Your task to perform on an android device: Go to Wikipedia Image 0: 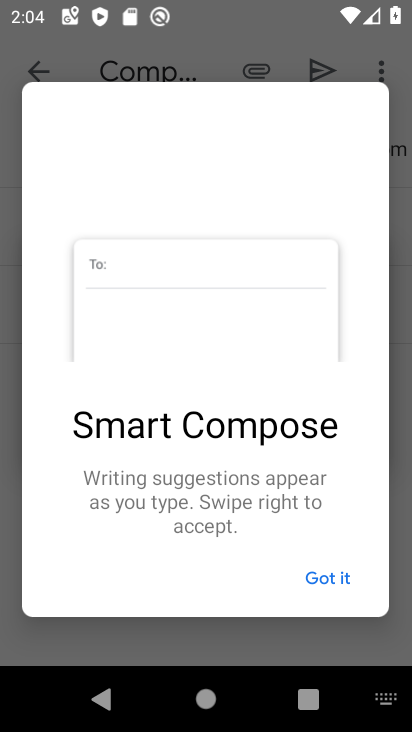
Step 0: press home button
Your task to perform on an android device: Go to Wikipedia Image 1: 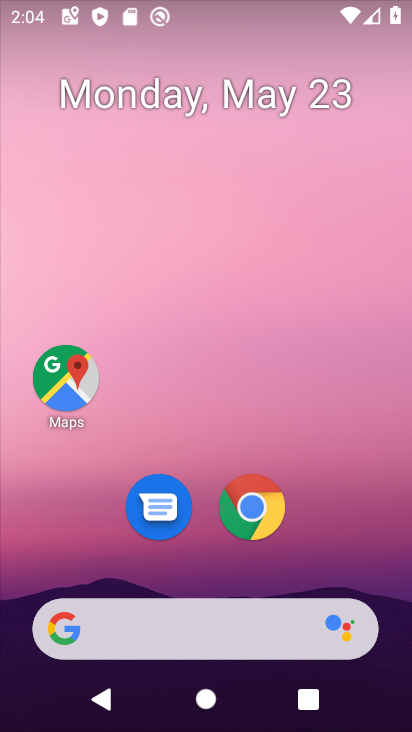
Step 1: click (250, 501)
Your task to perform on an android device: Go to Wikipedia Image 2: 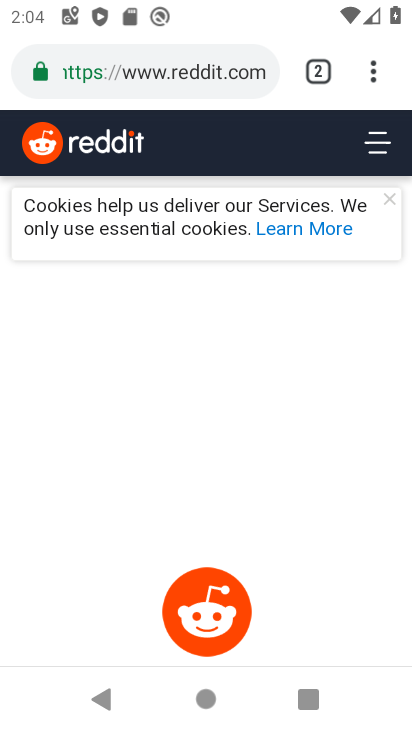
Step 2: click (375, 78)
Your task to perform on an android device: Go to Wikipedia Image 3: 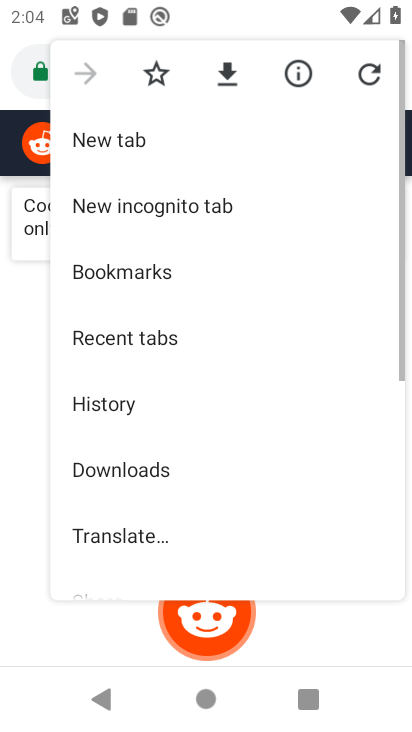
Step 3: click (94, 137)
Your task to perform on an android device: Go to Wikipedia Image 4: 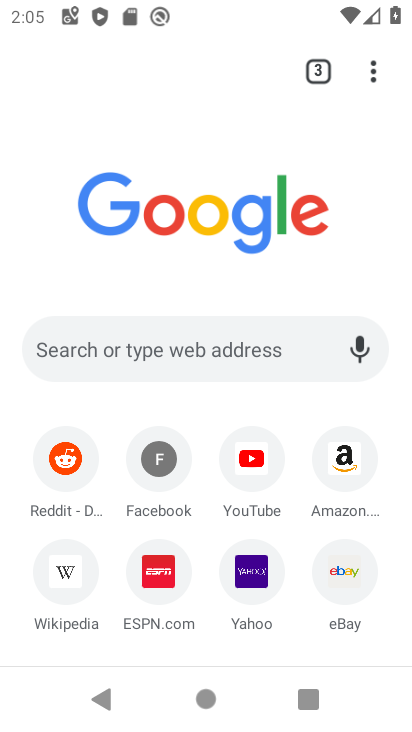
Step 4: click (61, 579)
Your task to perform on an android device: Go to Wikipedia Image 5: 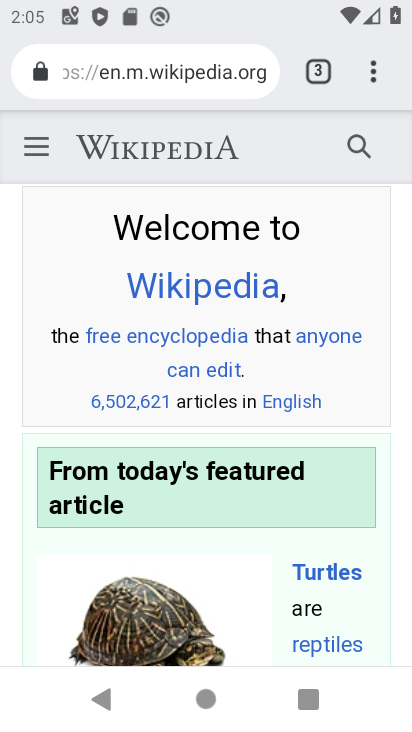
Step 5: task complete